Your task to perform on an android device: empty trash in google photos Image 0: 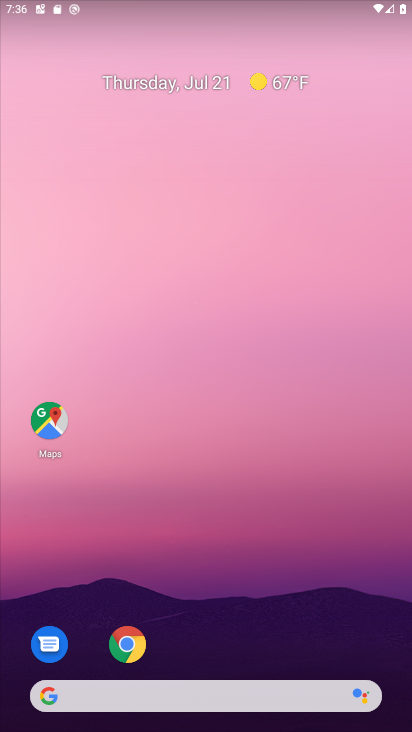
Step 0: drag from (206, 638) to (197, 178)
Your task to perform on an android device: empty trash in google photos Image 1: 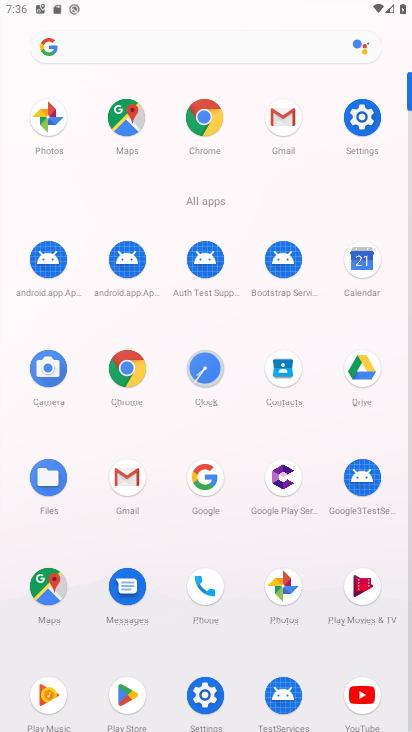
Step 1: click (282, 603)
Your task to perform on an android device: empty trash in google photos Image 2: 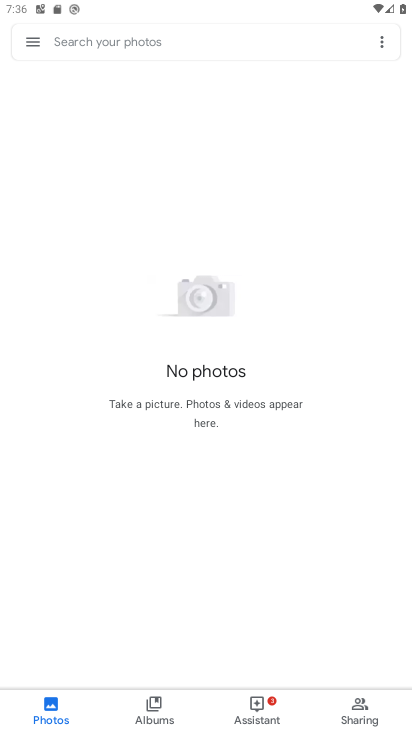
Step 2: click (31, 41)
Your task to perform on an android device: empty trash in google photos Image 3: 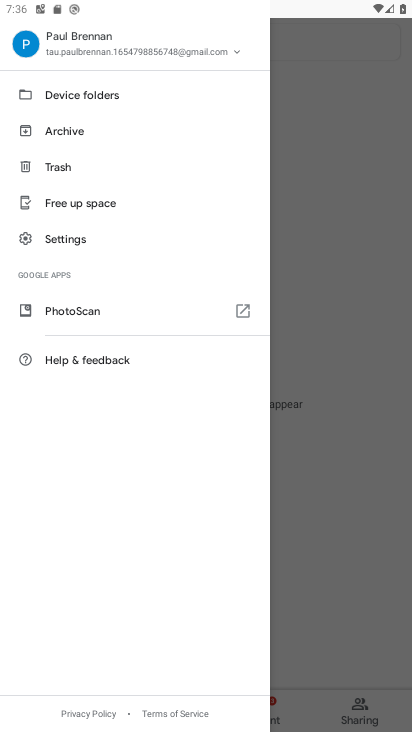
Step 3: click (60, 162)
Your task to perform on an android device: empty trash in google photos Image 4: 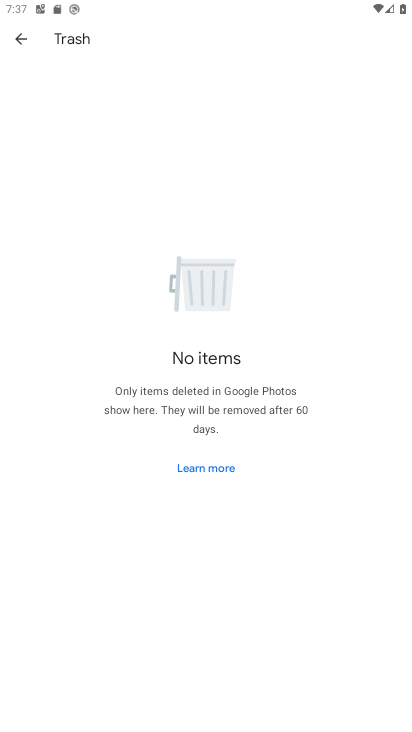
Step 4: task complete